Your task to perform on an android device: change the clock display to analog Image 0: 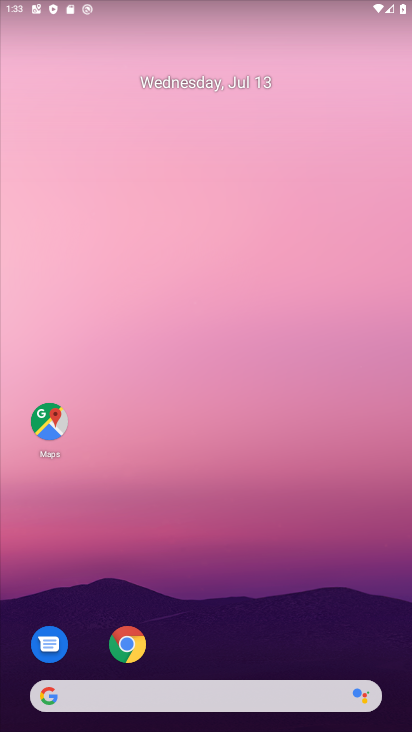
Step 0: drag from (248, 568) to (258, 250)
Your task to perform on an android device: change the clock display to analog Image 1: 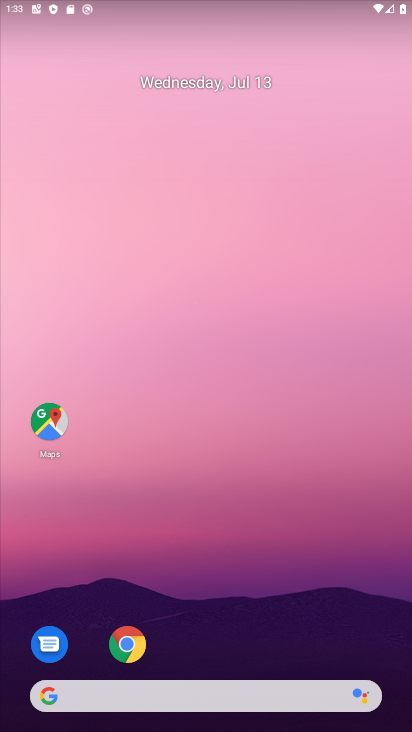
Step 1: drag from (289, 619) to (234, 63)
Your task to perform on an android device: change the clock display to analog Image 2: 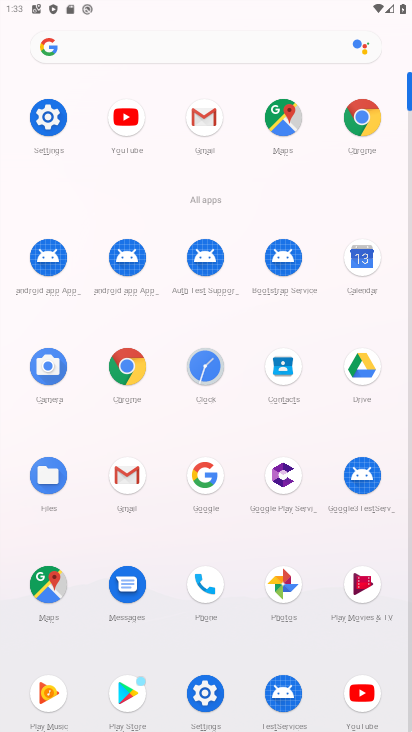
Step 2: click (200, 353)
Your task to perform on an android device: change the clock display to analog Image 3: 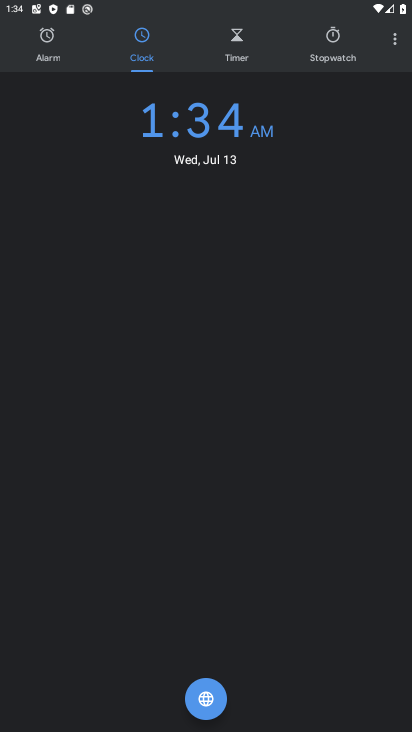
Step 3: click (392, 37)
Your task to perform on an android device: change the clock display to analog Image 4: 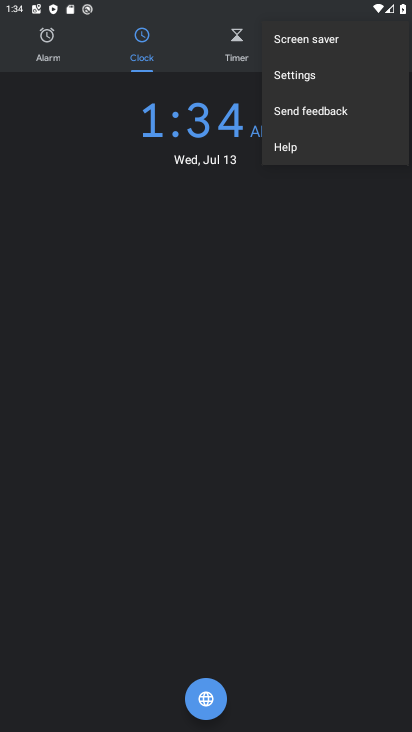
Step 4: click (298, 65)
Your task to perform on an android device: change the clock display to analog Image 5: 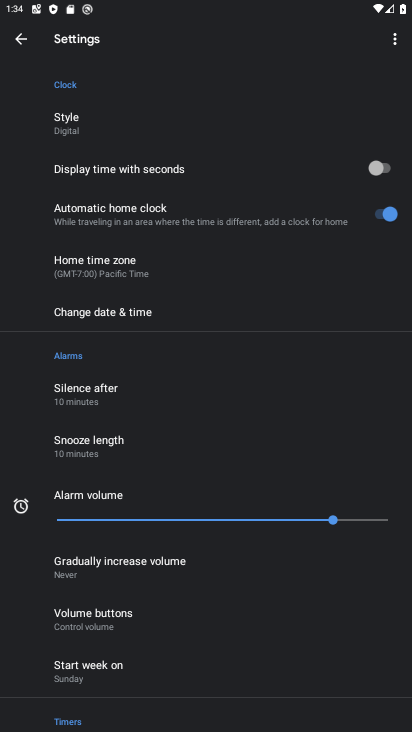
Step 5: click (65, 122)
Your task to perform on an android device: change the clock display to analog Image 6: 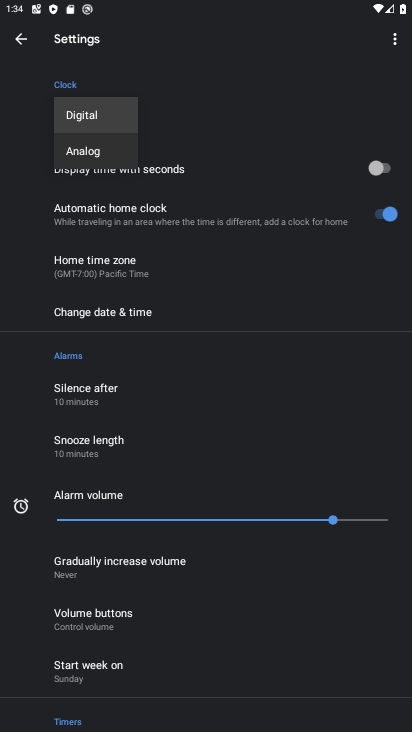
Step 6: click (92, 155)
Your task to perform on an android device: change the clock display to analog Image 7: 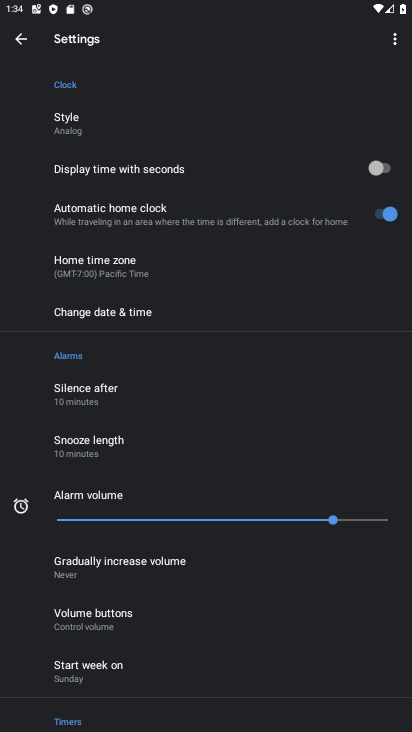
Step 7: task complete